Your task to perform on an android device: open a new tab in the chrome app Image 0: 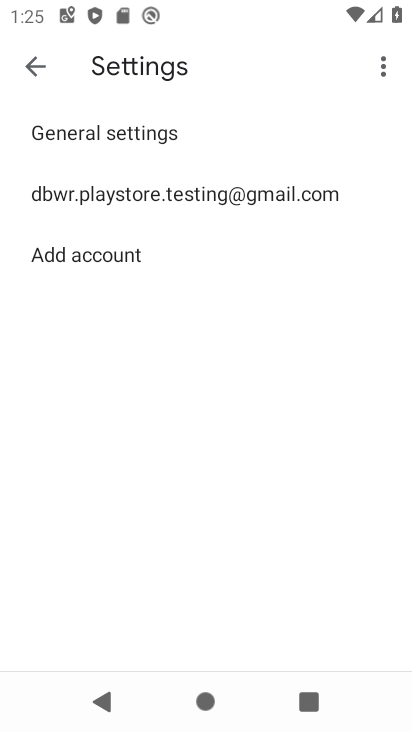
Step 0: press home button
Your task to perform on an android device: open a new tab in the chrome app Image 1: 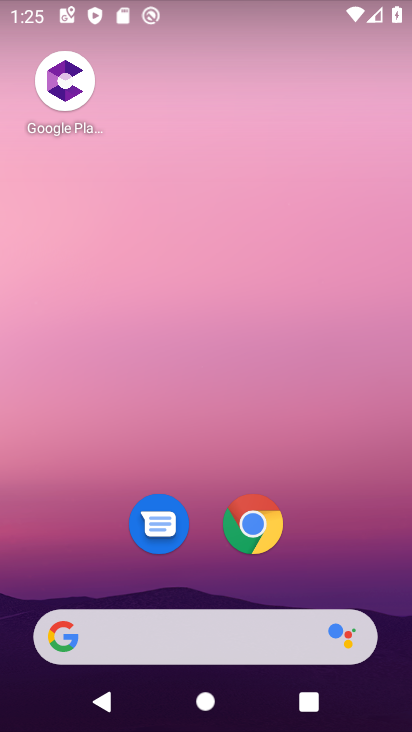
Step 1: click (267, 519)
Your task to perform on an android device: open a new tab in the chrome app Image 2: 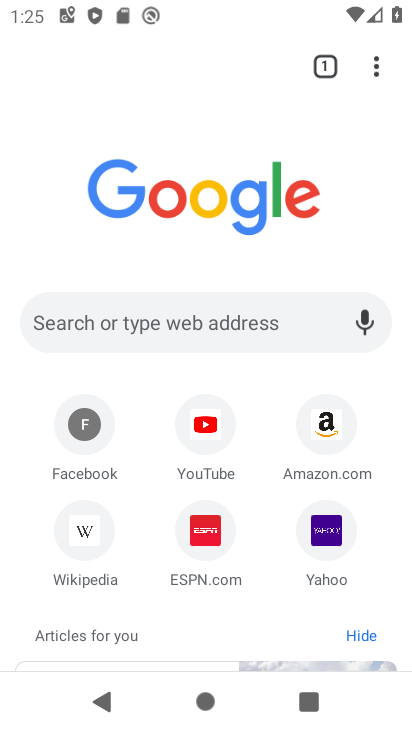
Step 2: click (376, 66)
Your task to perform on an android device: open a new tab in the chrome app Image 3: 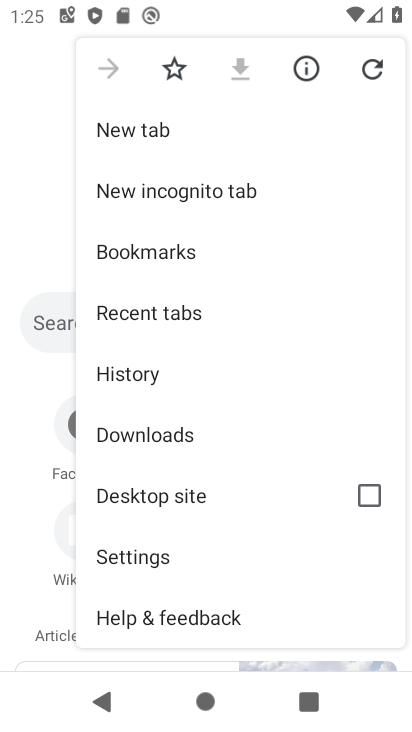
Step 3: click (262, 132)
Your task to perform on an android device: open a new tab in the chrome app Image 4: 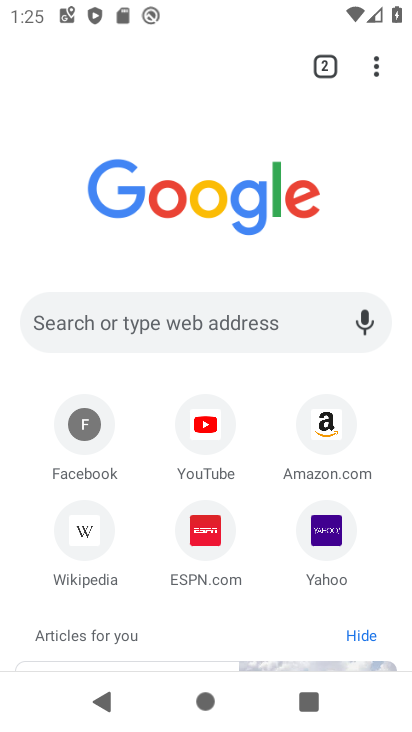
Step 4: task complete